Your task to perform on an android device: change text size in settings app Image 0: 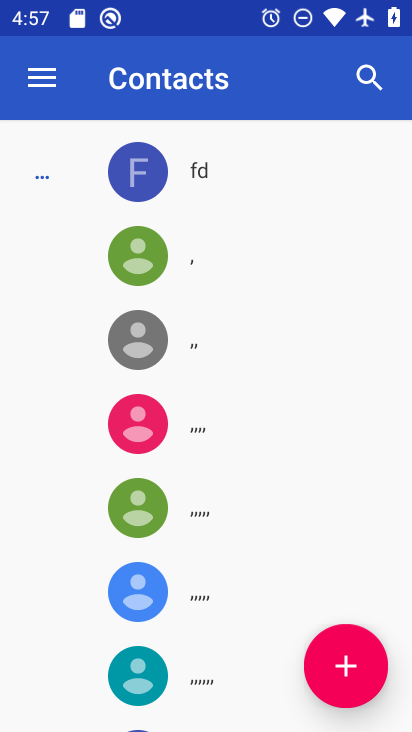
Step 0: press home button
Your task to perform on an android device: change text size in settings app Image 1: 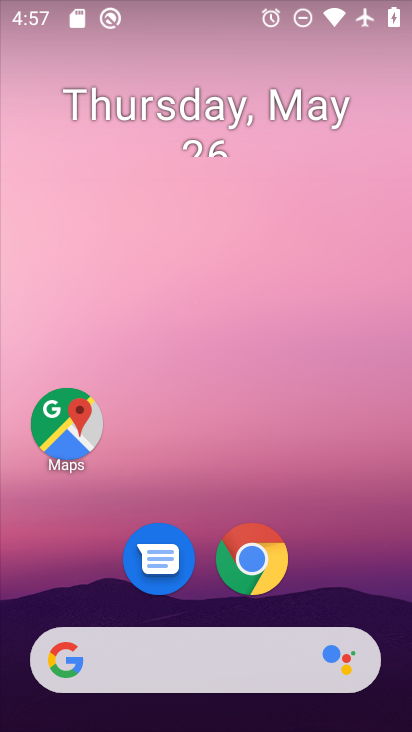
Step 1: drag from (336, 420) to (137, 21)
Your task to perform on an android device: change text size in settings app Image 2: 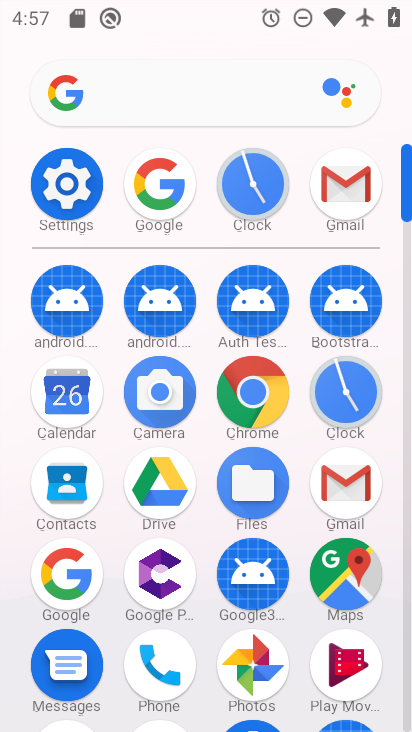
Step 2: click (56, 187)
Your task to perform on an android device: change text size in settings app Image 3: 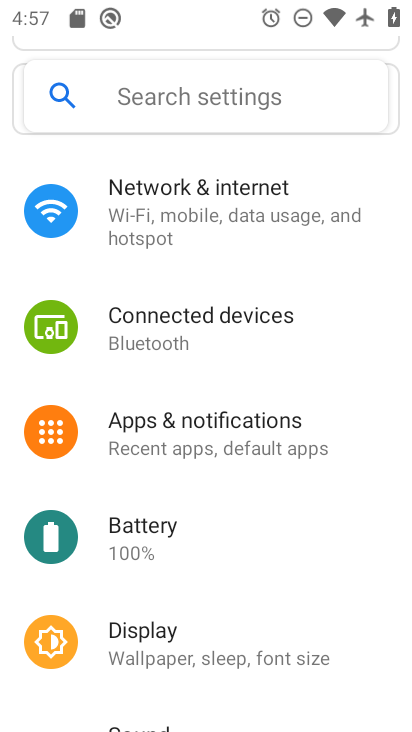
Step 3: click (190, 659)
Your task to perform on an android device: change text size in settings app Image 4: 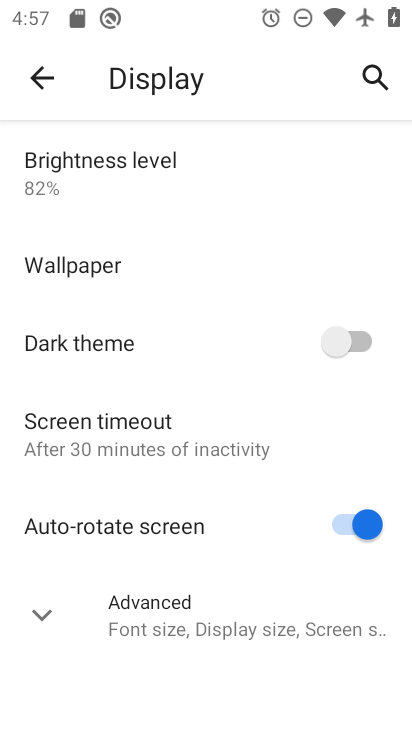
Step 4: click (182, 622)
Your task to perform on an android device: change text size in settings app Image 5: 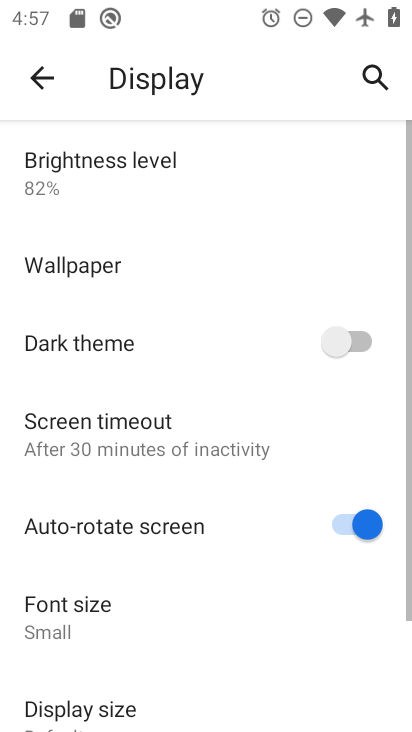
Step 5: click (144, 614)
Your task to perform on an android device: change text size in settings app Image 6: 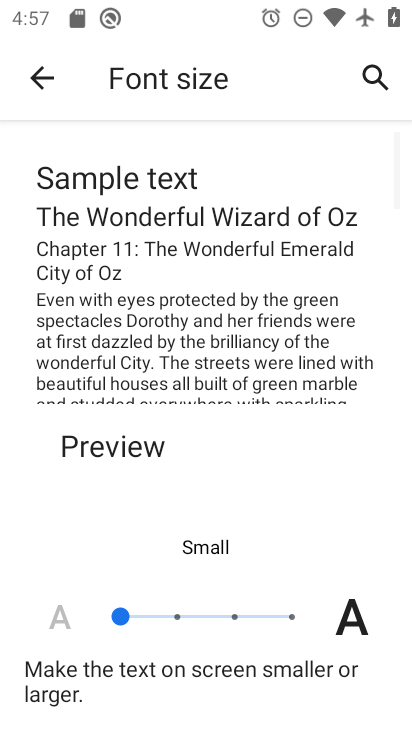
Step 6: click (174, 621)
Your task to perform on an android device: change text size in settings app Image 7: 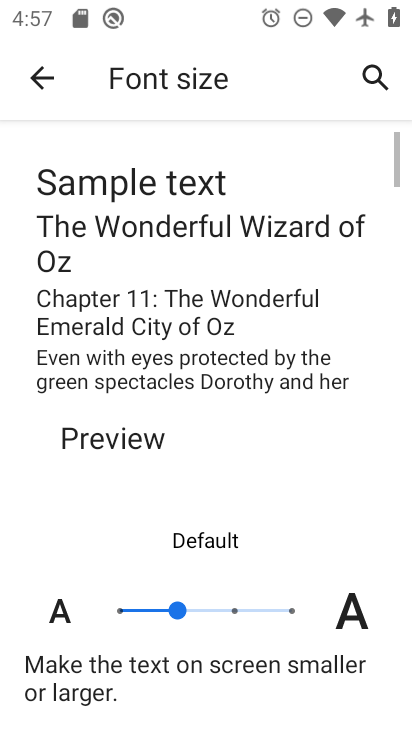
Step 7: task complete